Your task to perform on an android device: What's on Reddit this week Image 0: 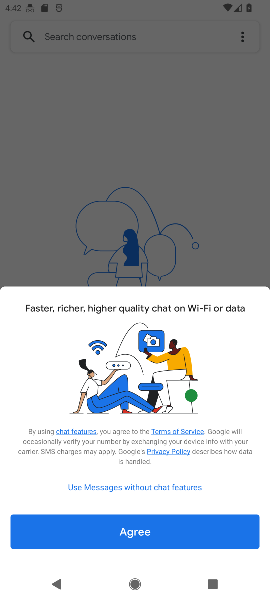
Step 0: press home button
Your task to perform on an android device: What's on Reddit this week Image 1: 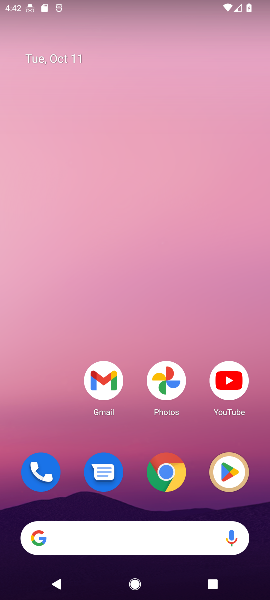
Step 1: click (164, 480)
Your task to perform on an android device: What's on Reddit this week Image 2: 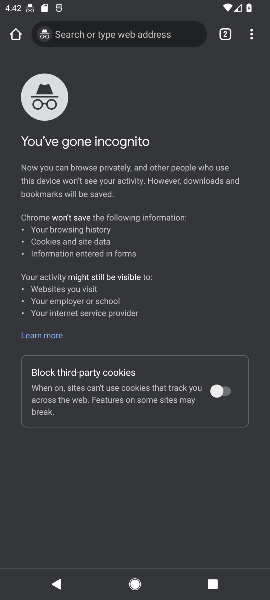
Step 2: click (118, 39)
Your task to perform on an android device: What's on Reddit this week Image 3: 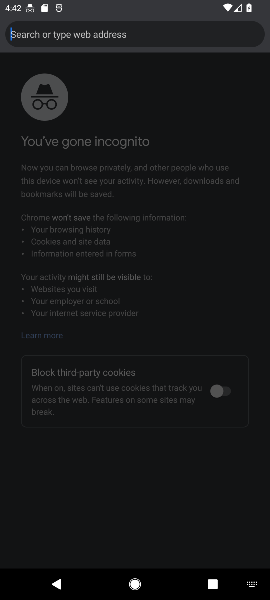
Step 3: type "What's on Reddit this week"
Your task to perform on an android device: What's on Reddit this week Image 4: 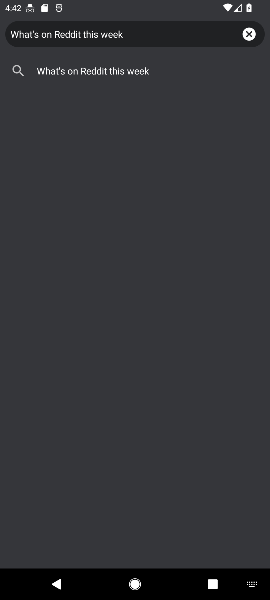
Step 4: click (93, 65)
Your task to perform on an android device: What's on Reddit this week Image 5: 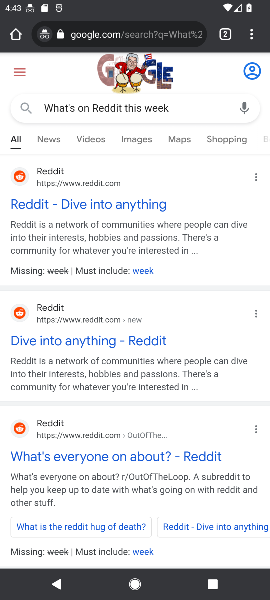
Step 5: click (102, 453)
Your task to perform on an android device: What's on Reddit this week Image 6: 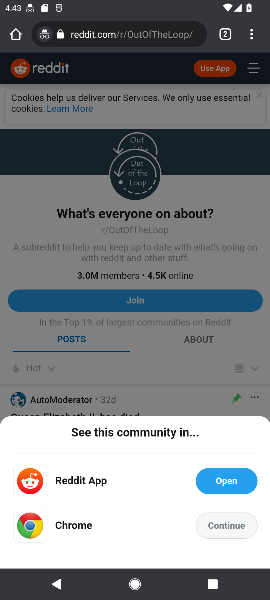
Step 6: task complete